Your task to perform on an android device: Open display settings Image 0: 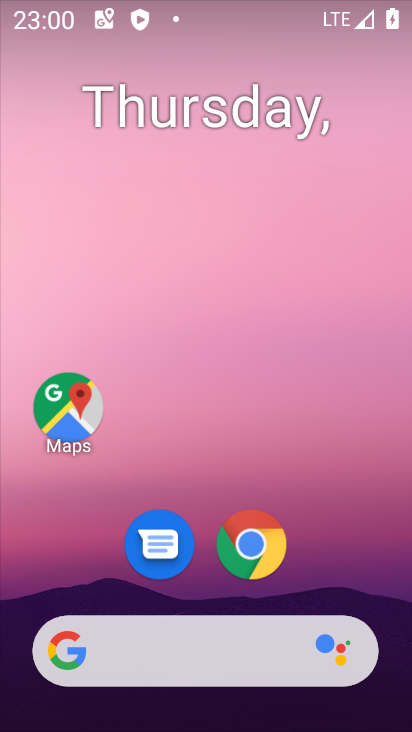
Step 0: drag from (184, 435) to (117, 73)
Your task to perform on an android device: Open display settings Image 1: 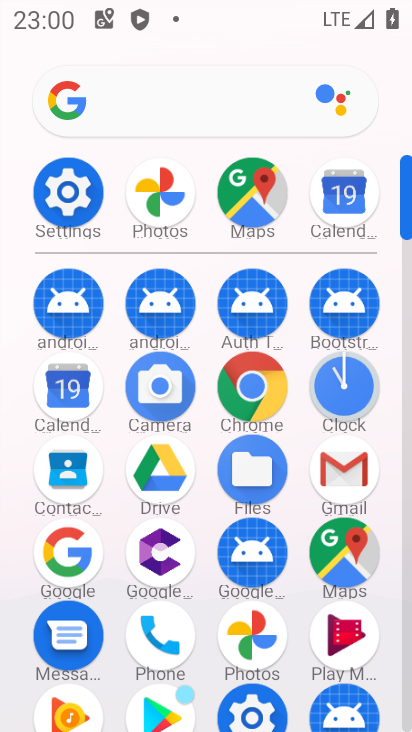
Step 1: click (74, 206)
Your task to perform on an android device: Open display settings Image 2: 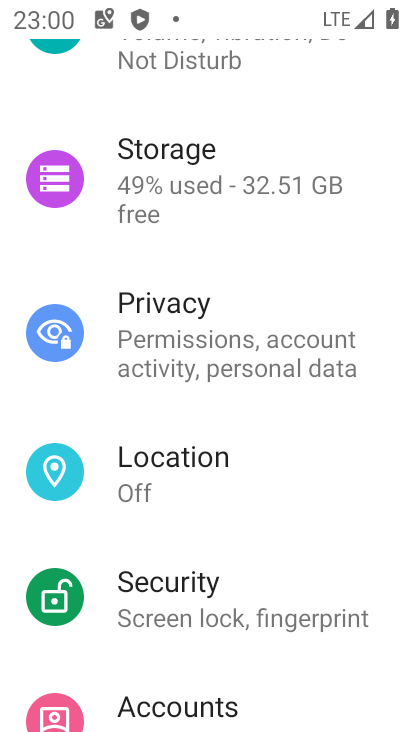
Step 2: drag from (198, 222) to (210, 684)
Your task to perform on an android device: Open display settings Image 3: 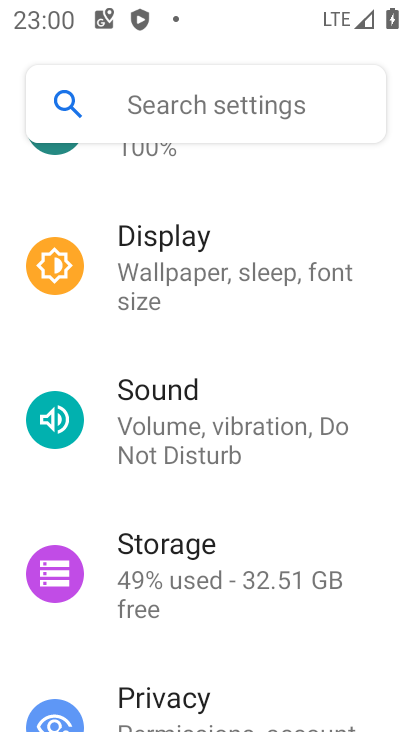
Step 3: click (172, 249)
Your task to perform on an android device: Open display settings Image 4: 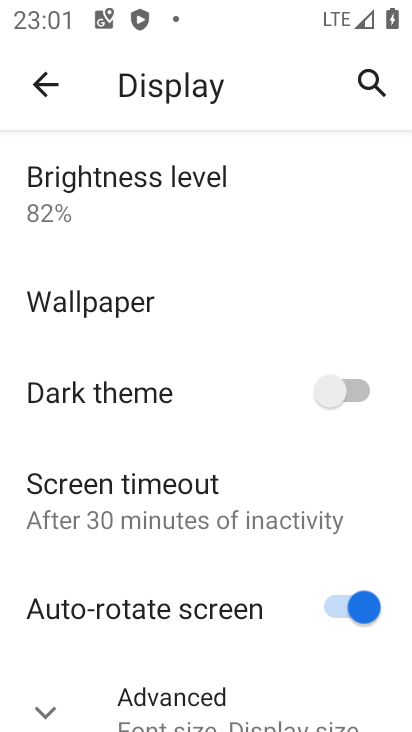
Step 4: click (158, 704)
Your task to perform on an android device: Open display settings Image 5: 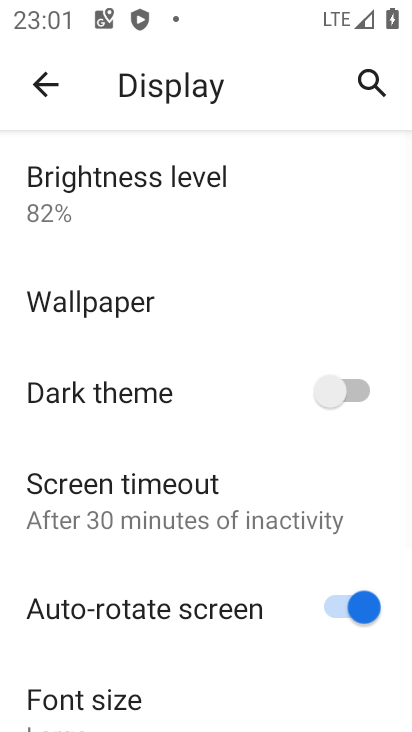
Step 5: task complete